Your task to perform on an android device: toggle priority inbox in the gmail app Image 0: 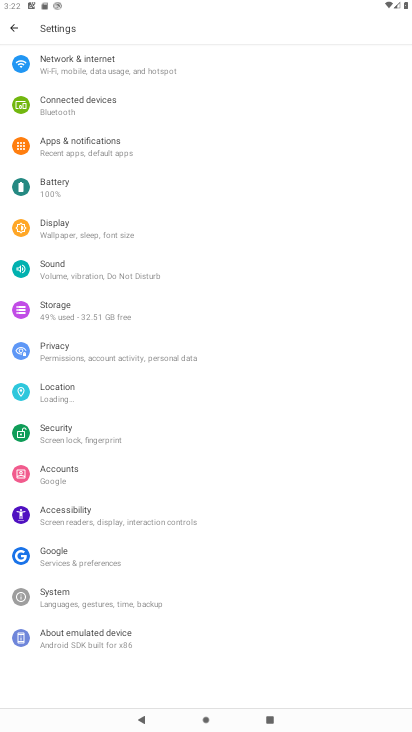
Step 0: press home button
Your task to perform on an android device: toggle priority inbox in the gmail app Image 1: 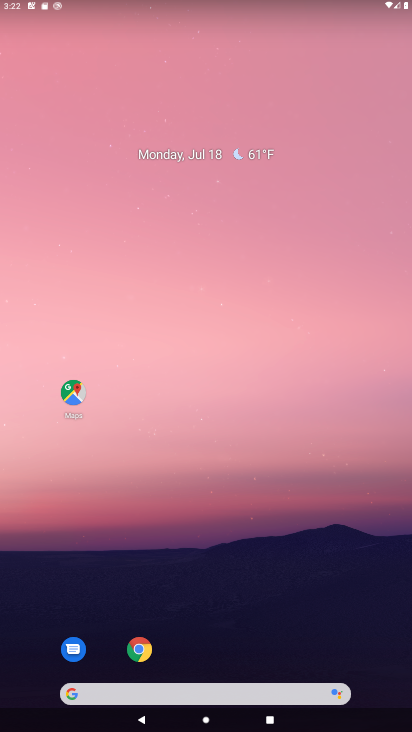
Step 1: drag from (245, 627) to (204, 102)
Your task to perform on an android device: toggle priority inbox in the gmail app Image 2: 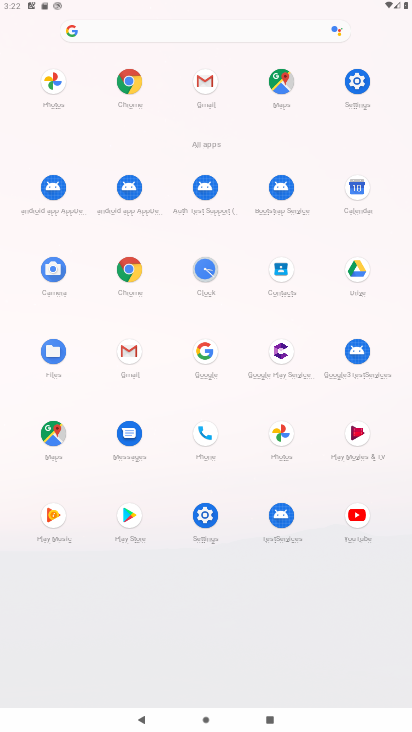
Step 2: click (204, 88)
Your task to perform on an android device: toggle priority inbox in the gmail app Image 3: 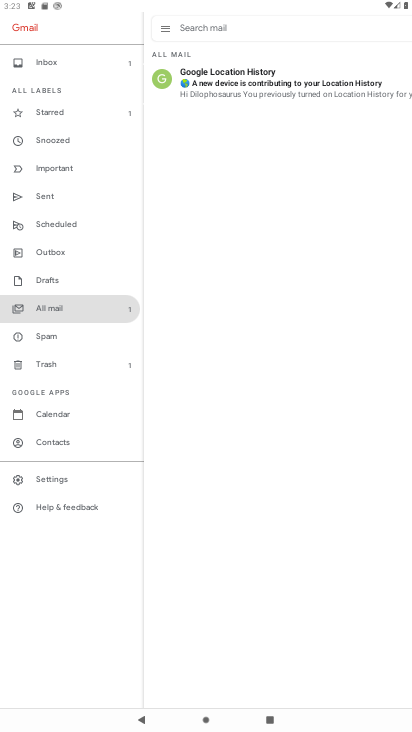
Step 3: click (49, 484)
Your task to perform on an android device: toggle priority inbox in the gmail app Image 4: 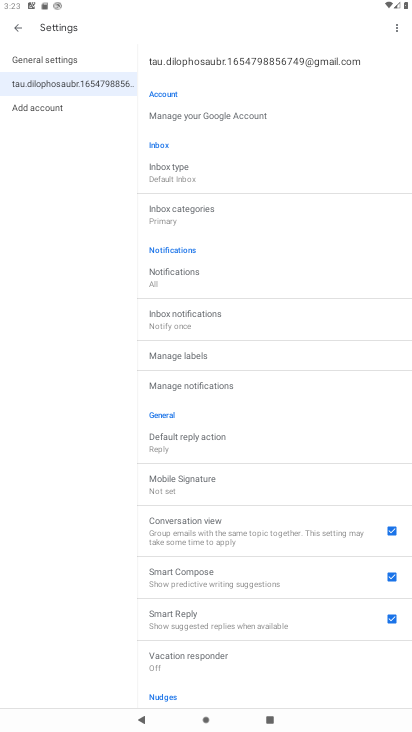
Step 4: click (203, 184)
Your task to perform on an android device: toggle priority inbox in the gmail app Image 5: 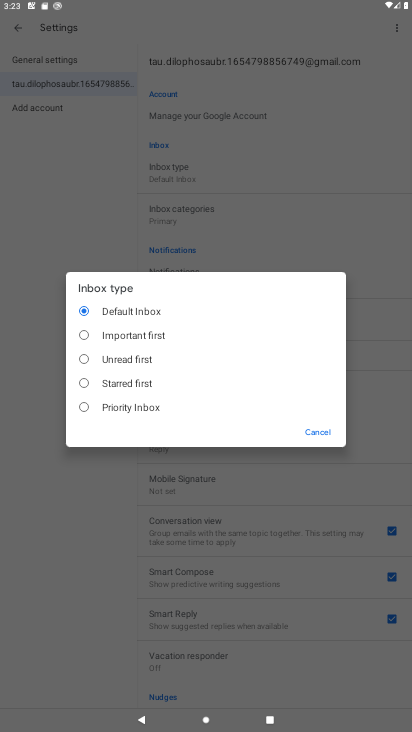
Step 5: click (155, 402)
Your task to perform on an android device: toggle priority inbox in the gmail app Image 6: 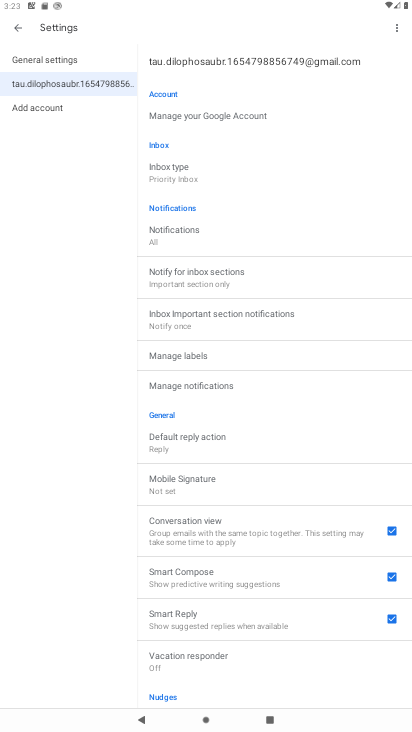
Step 6: task complete